Your task to perform on an android device: Go to Reddit.com Image 0: 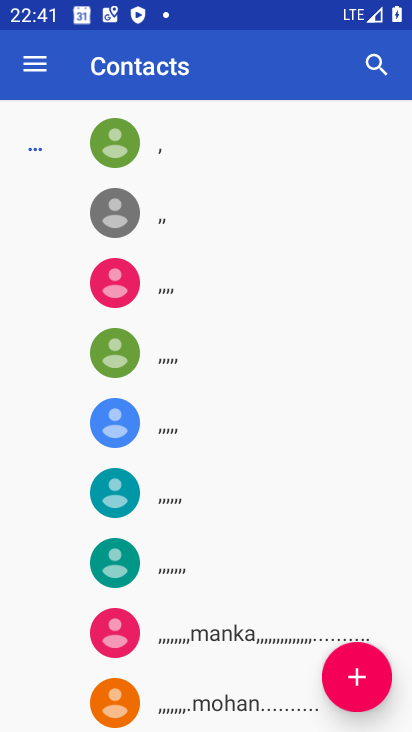
Step 0: press home button
Your task to perform on an android device: Go to Reddit.com Image 1: 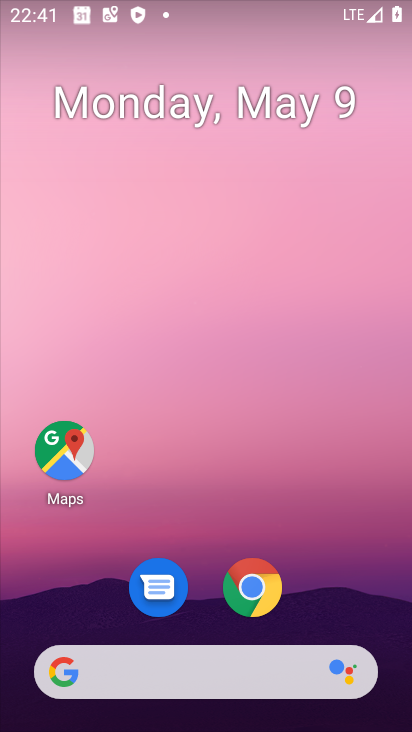
Step 1: click (252, 594)
Your task to perform on an android device: Go to Reddit.com Image 2: 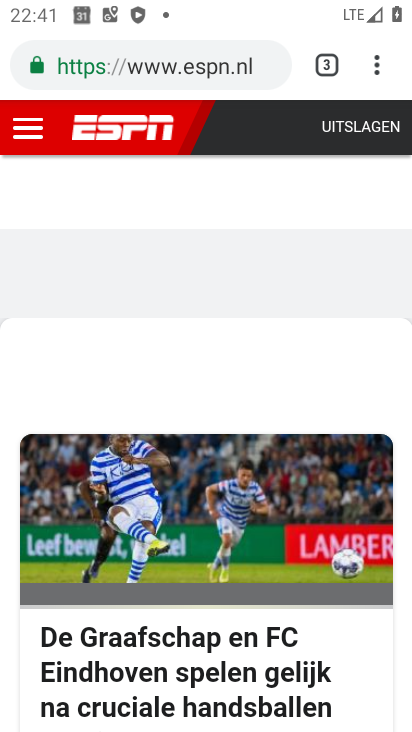
Step 2: click (210, 61)
Your task to perform on an android device: Go to Reddit.com Image 3: 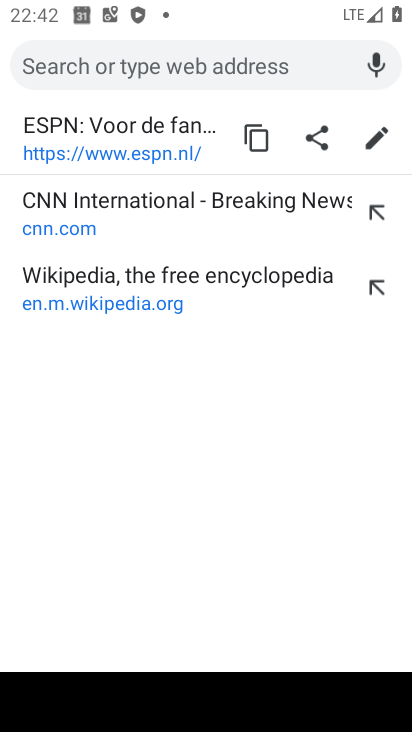
Step 3: type "reddit.com"
Your task to perform on an android device: Go to Reddit.com Image 4: 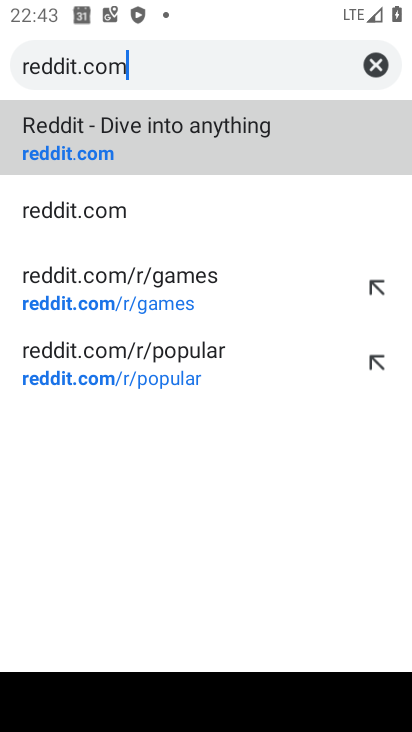
Step 4: click (54, 157)
Your task to perform on an android device: Go to Reddit.com Image 5: 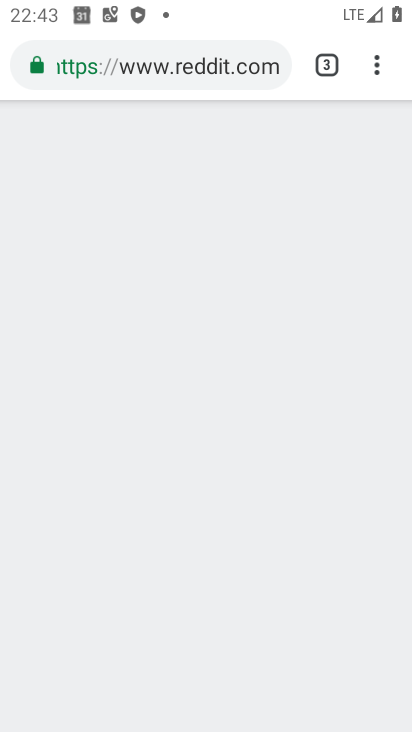
Step 5: task complete